Your task to perform on an android device: Go to location settings Image 0: 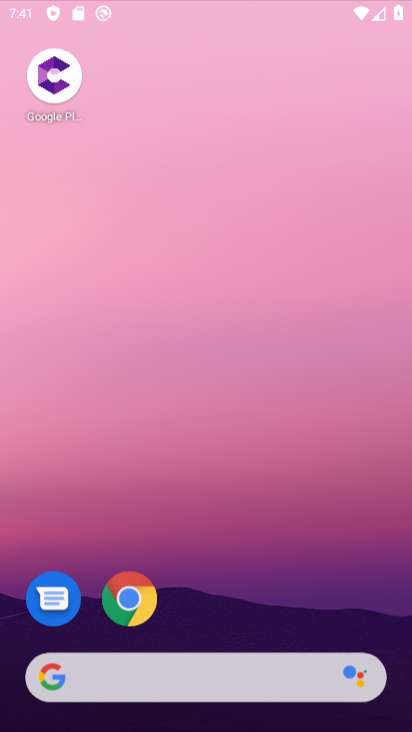
Step 0: drag from (184, 608) to (277, 15)
Your task to perform on an android device: Go to location settings Image 1: 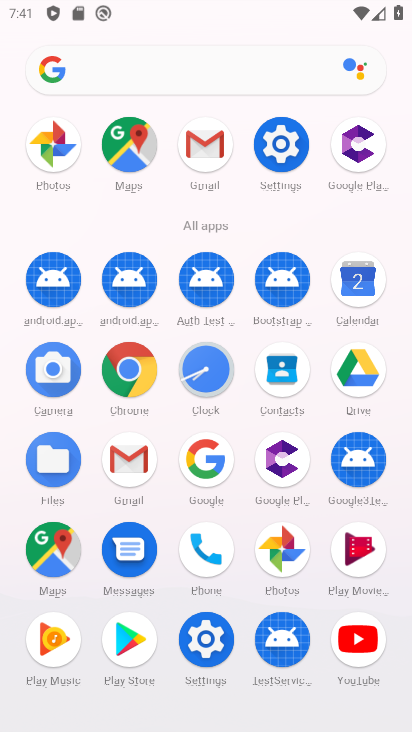
Step 1: click (296, 137)
Your task to perform on an android device: Go to location settings Image 2: 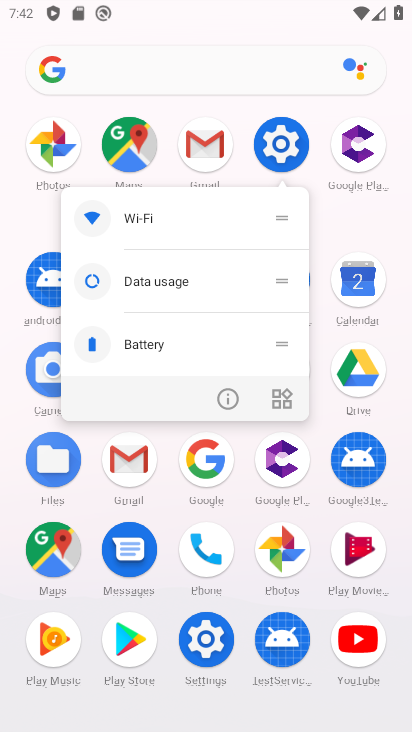
Step 2: click (233, 397)
Your task to perform on an android device: Go to location settings Image 3: 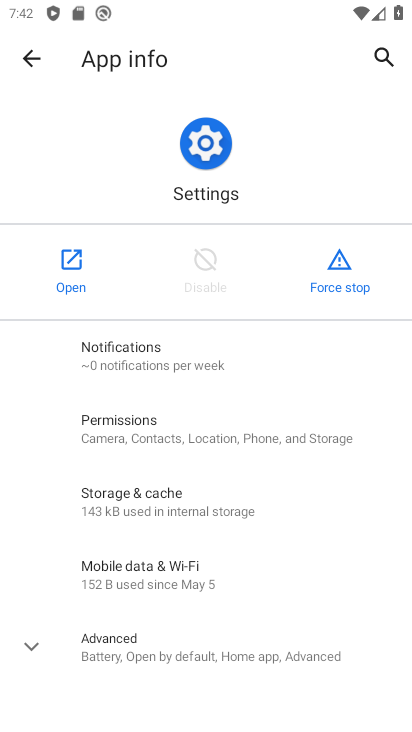
Step 3: click (78, 286)
Your task to perform on an android device: Go to location settings Image 4: 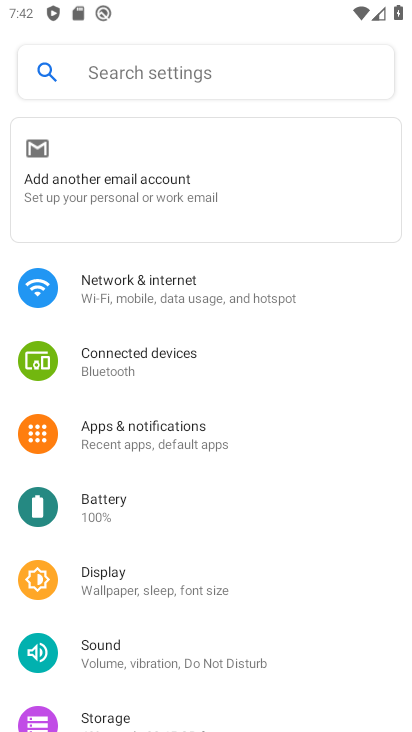
Step 4: drag from (197, 651) to (191, 129)
Your task to perform on an android device: Go to location settings Image 5: 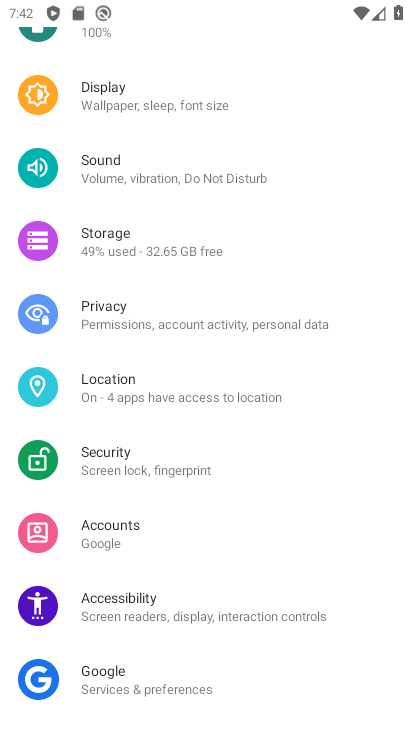
Step 5: click (149, 391)
Your task to perform on an android device: Go to location settings Image 6: 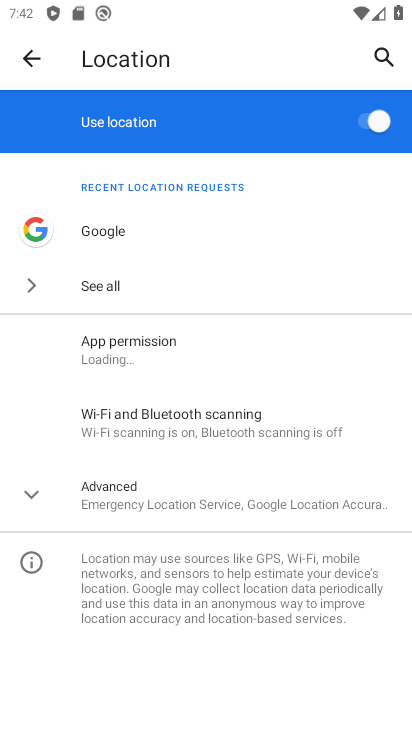
Step 6: task complete